Your task to perform on an android device: see creations saved in the google photos Image 0: 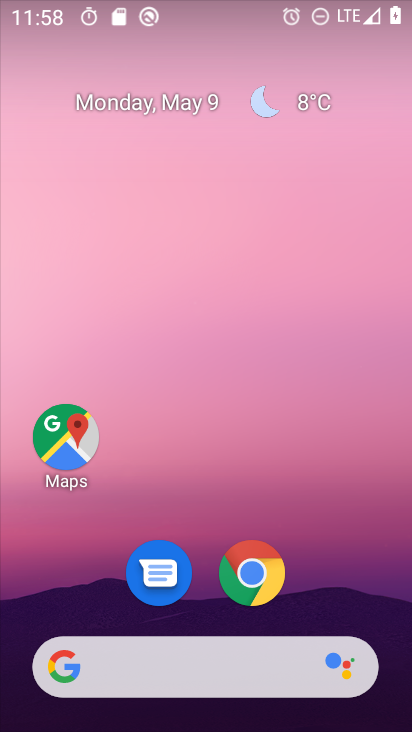
Step 0: drag from (327, 594) to (252, 14)
Your task to perform on an android device: see creations saved in the google photos Image 1: 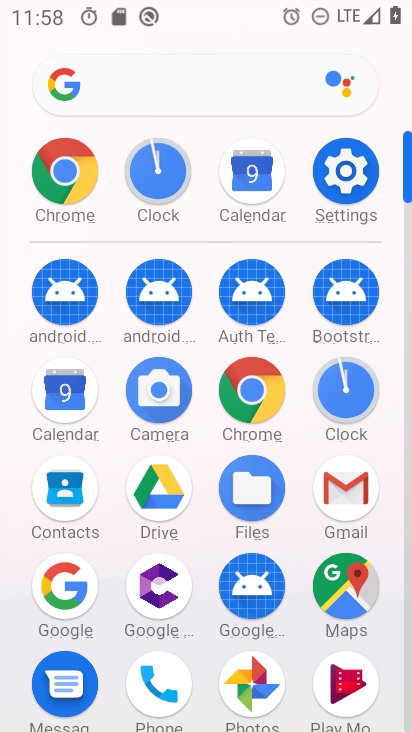
Step 1: click (247, 693)
Your task to perform on an android device: see creations saved in the google photos Image 2: 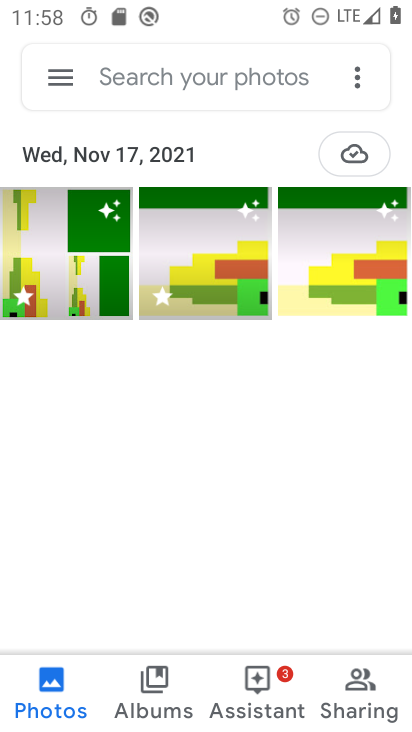
Step 2: click (164, 679)
Your task to perform on an android device: see creations saved in the google photos Image 3: 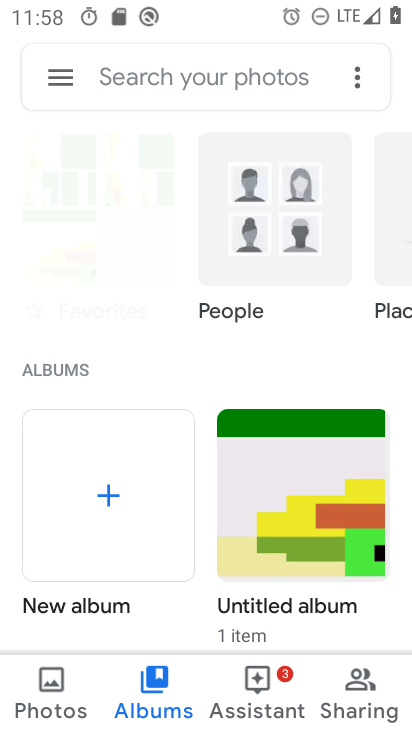
Step 3: click (284, 693)
Your task to perform on an android device: see creations saved in the google photos Image 4: 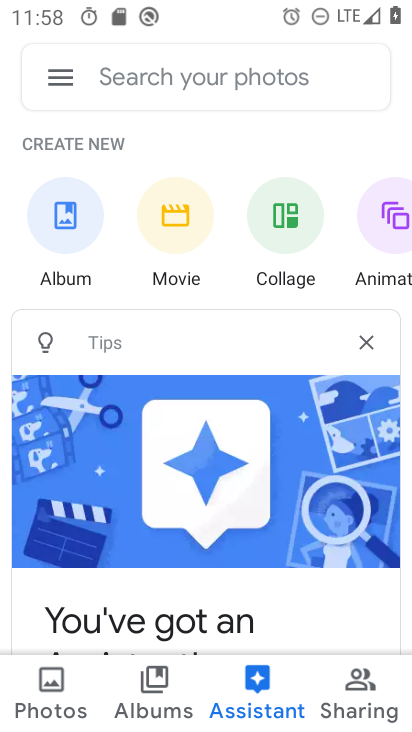
Step 4: drag from (359, 224) to (10, 236)
Your task to perform on an android device: see creations saved in the google photos Image 5: 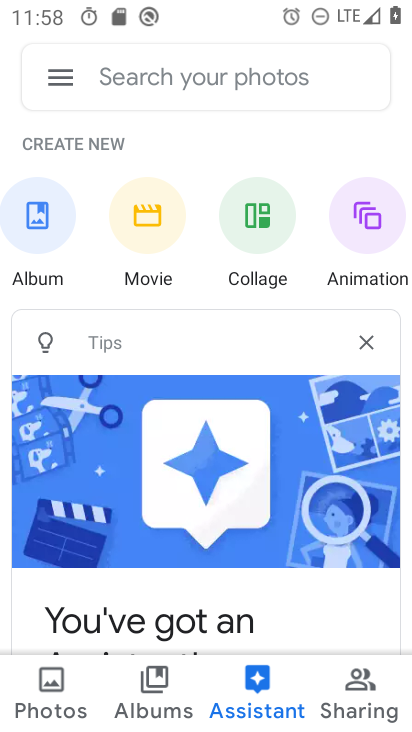
Step 5: click (387, 692)
Your task to perform on an android device: see creations saved in the google photos Image 6: 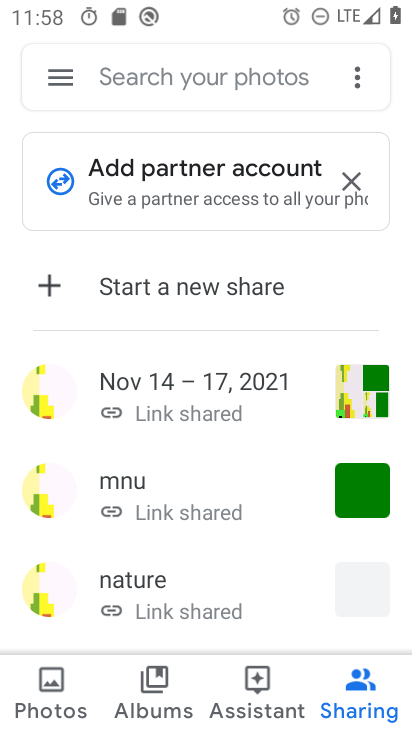
Step 6: click (142, 677)
Your task to perform on an android device: see creations saved in the google photos Image 7: 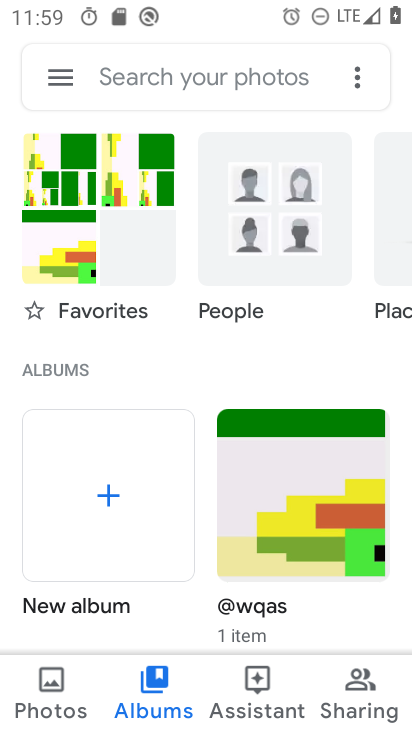
Step 7: task complete